Your task to perform on an android device: Open location settings Image 0: 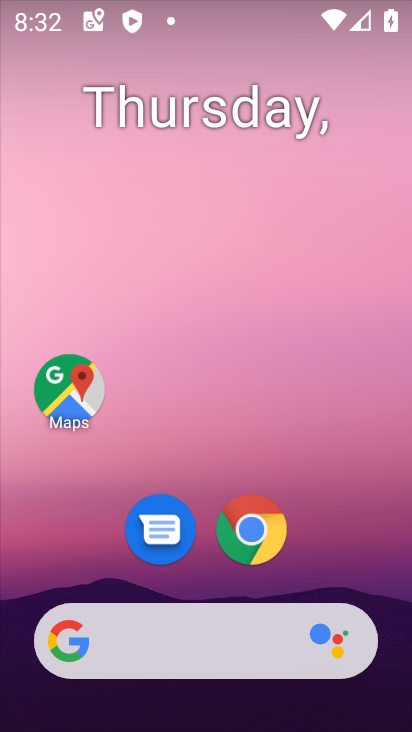
Step 0: drag from (211, 728) to (216, 168)
Your task to perform on an android device: Open location settings Image 1: 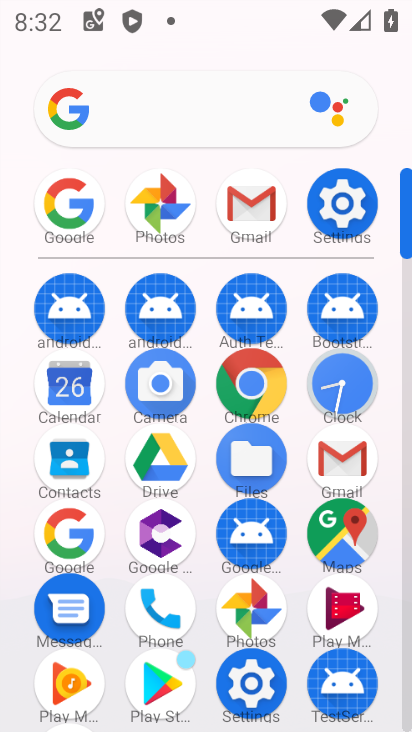
Step 1: click (352, 195)
Your task to perform on an android device: Open location settings Image 2: 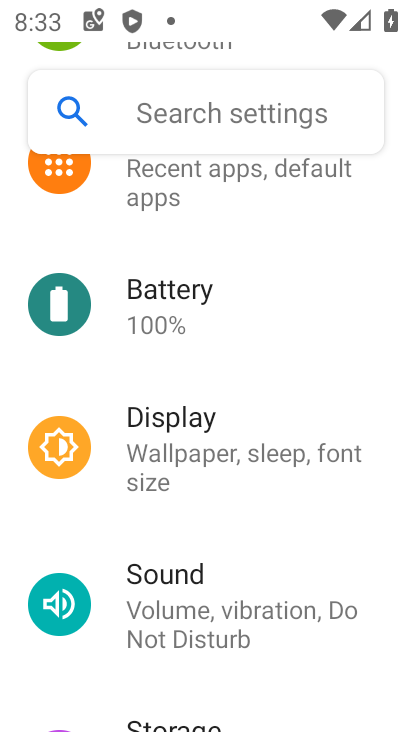
Step 2: drag from (213, 677) to (220, 375)
Your task to perform on an android device: Open location settings Image 3: 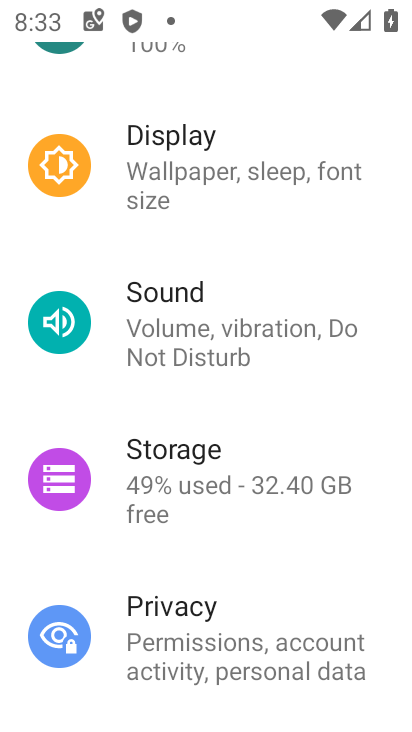
Step 3: drag from (202, 692) to (218, 240)
Your task to perform on an android device: Open location settings Image 4: 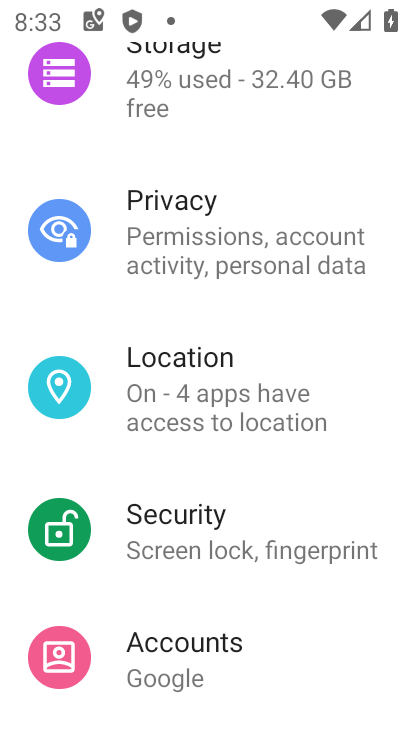
Step 4: click (200, 403)
Your task to perform on an android device: Open location settings Image 5: 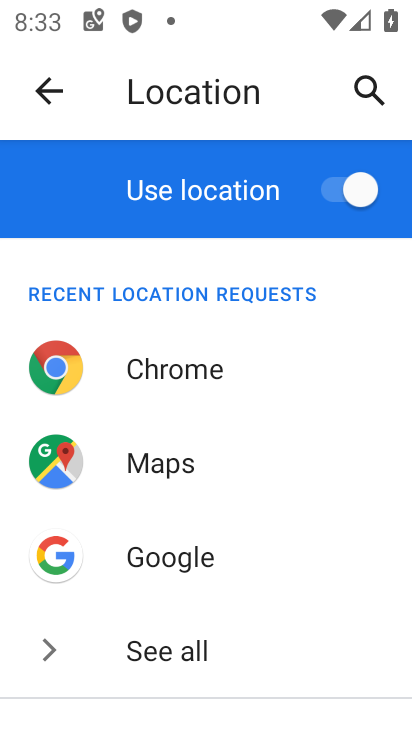
Step 5: task complete